Your task to perform on an android device: clear history in the chrome app Image 0: 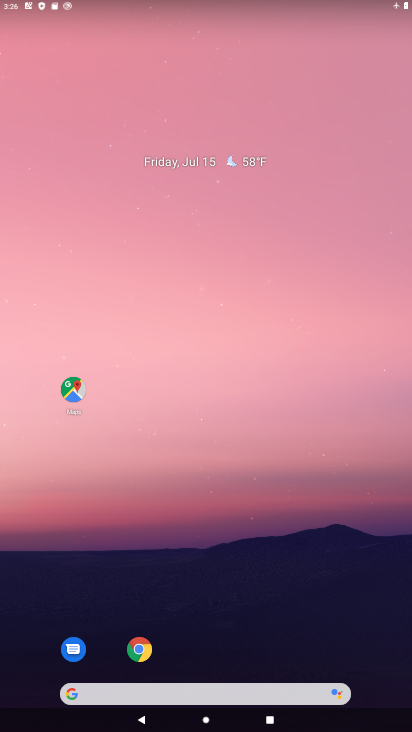
Step 0: click (140, 652)
Your task to perform on an android device: clear history in the chrome app Image 1: 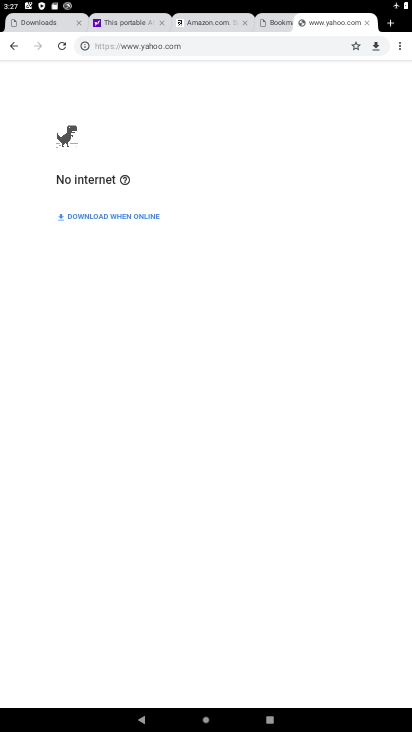
Step 1: click (401, 47)
Your task to perform on an android device: clear history in the chrome app Image 2: 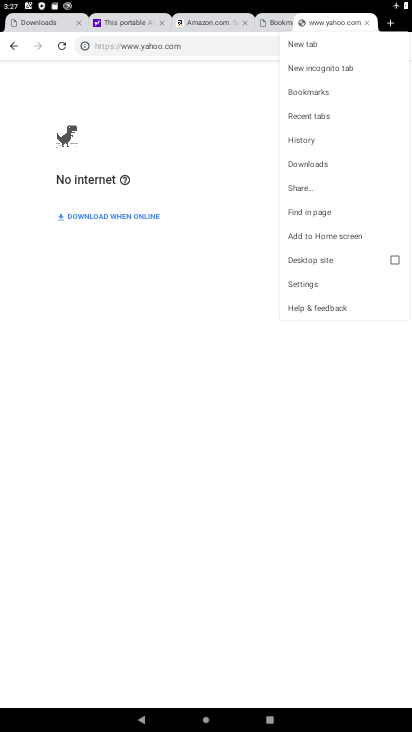
Step 2: click (305, 143)
Your task to perform on an android device: clear history in the chrome app Image 3: 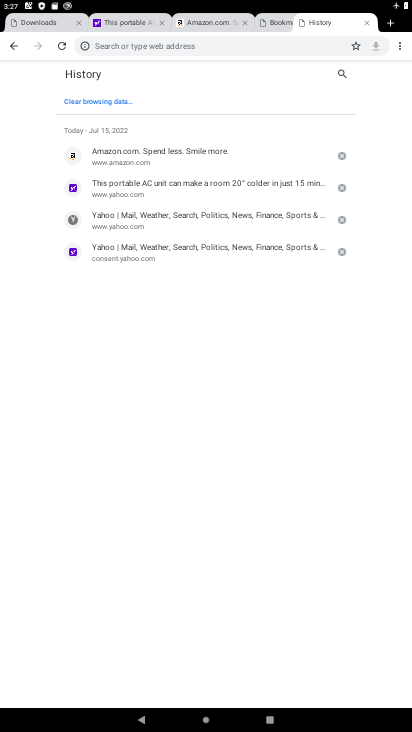
Step 3: click (109, 102)
Your task to perform on an android device: clear history in the chrome app Image 4: 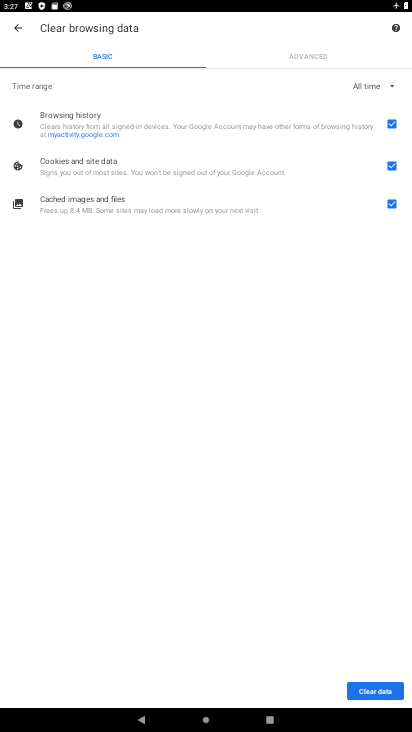
Step 4: click (391, 201)
Your task to perform on an android device: clear history in the chrome app Image 5: 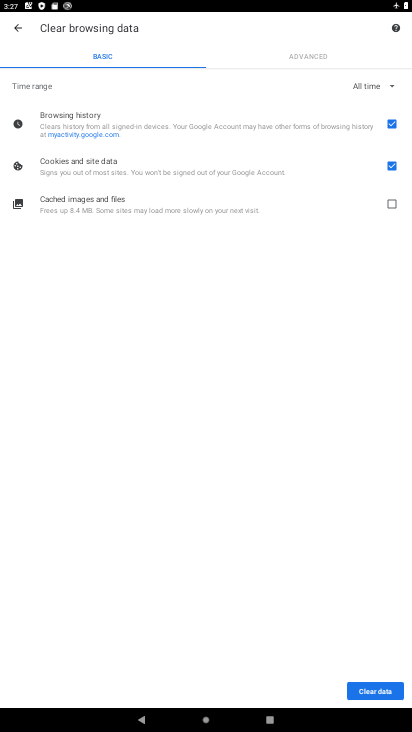
Step 5: click (393, 163)
Your task to perform on an android device: clear history in the chrome app Image 6: 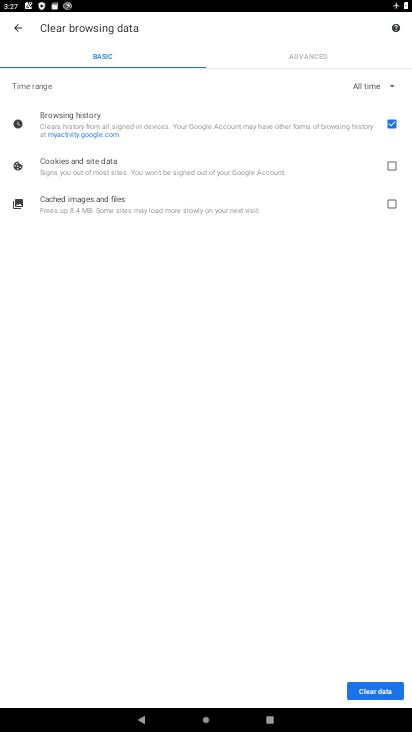
Step 6: click (375, 694)
Your task to perform on an android device: clear history in the chrome app Image 7: 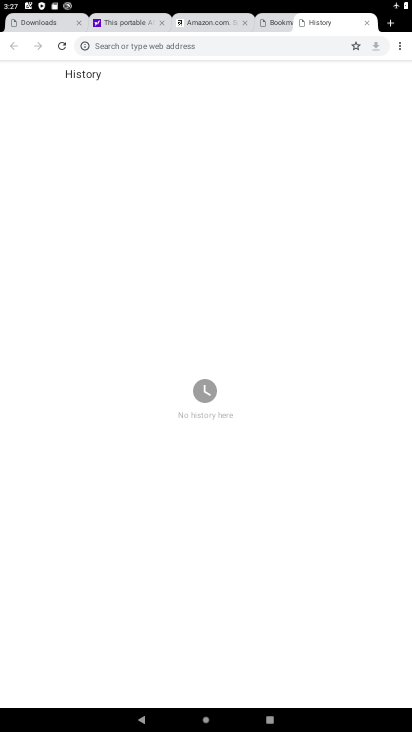
Step 7: task complete